Your task to perform on an android device: stop showing notifications on the lock screen Image 0: 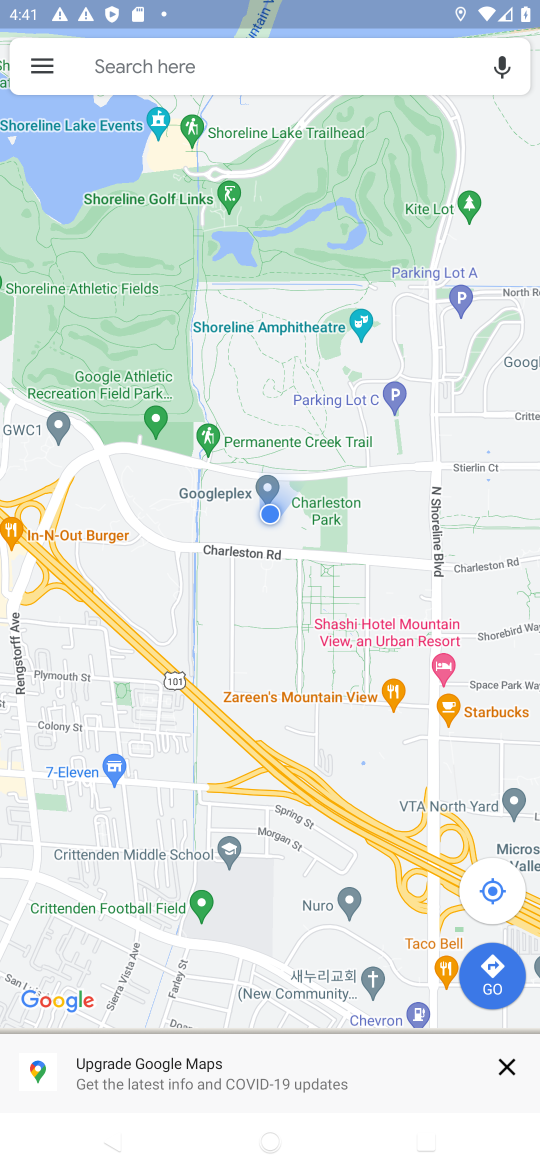
Step 0: press home button
Your task to perform on an android device: stop showing notifications on the lock screen Image 1: 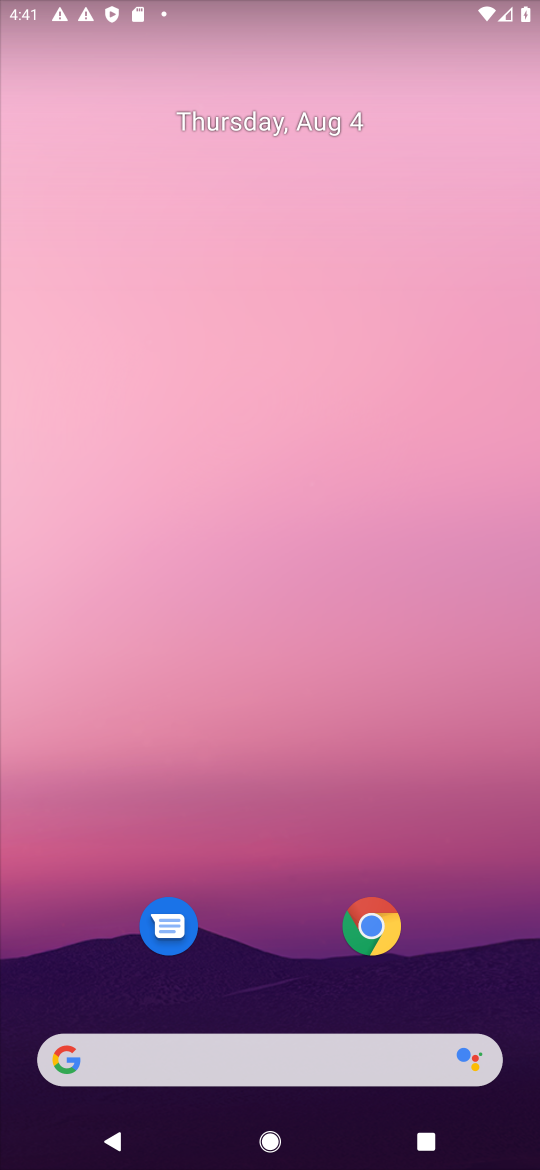
Step 1: drag from (261, 997) to (347, 362)
Your task to perform on an android device: stop showing notifications on the lock screen Image 2: 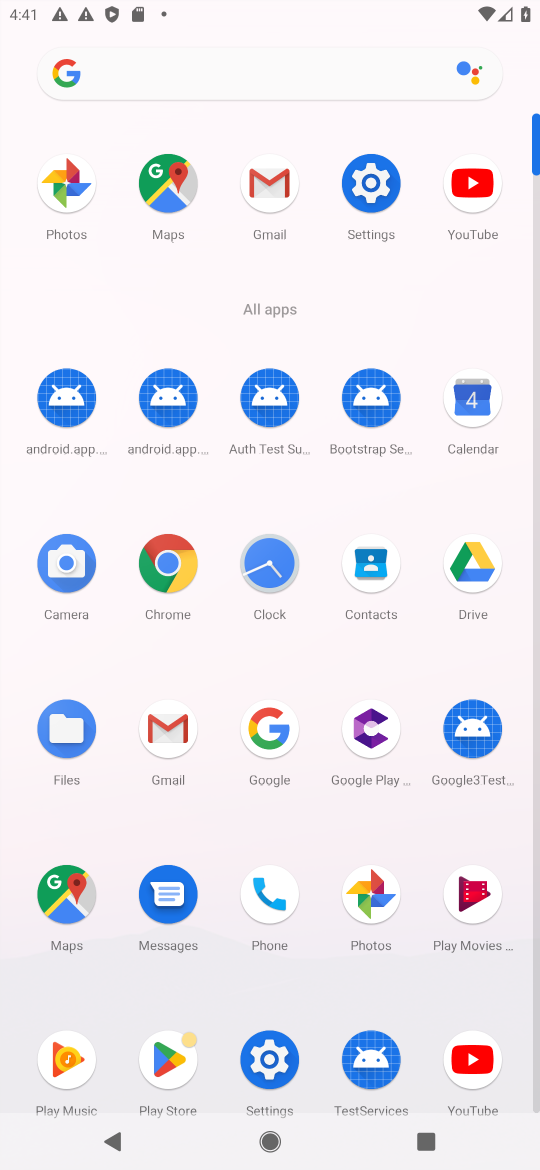
Step 2: click (381, 193)
Your task to perform on an android device: stop showing notifications on the lock screen Image 3: 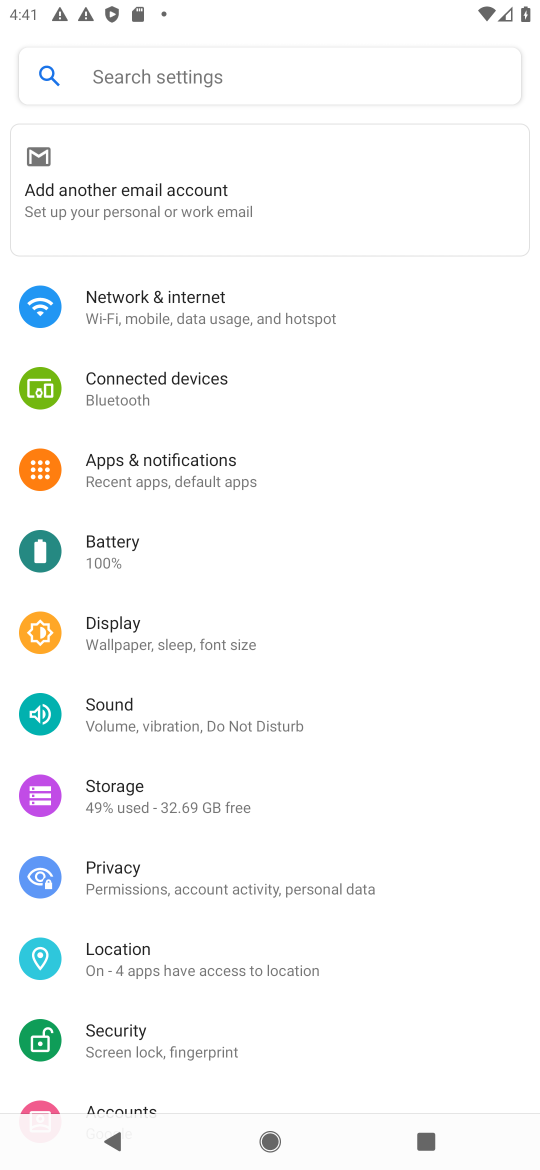
Step 3: click (146, 479)
Your task to perform on an android device: stop showing notifications on the lock screen Image 4: 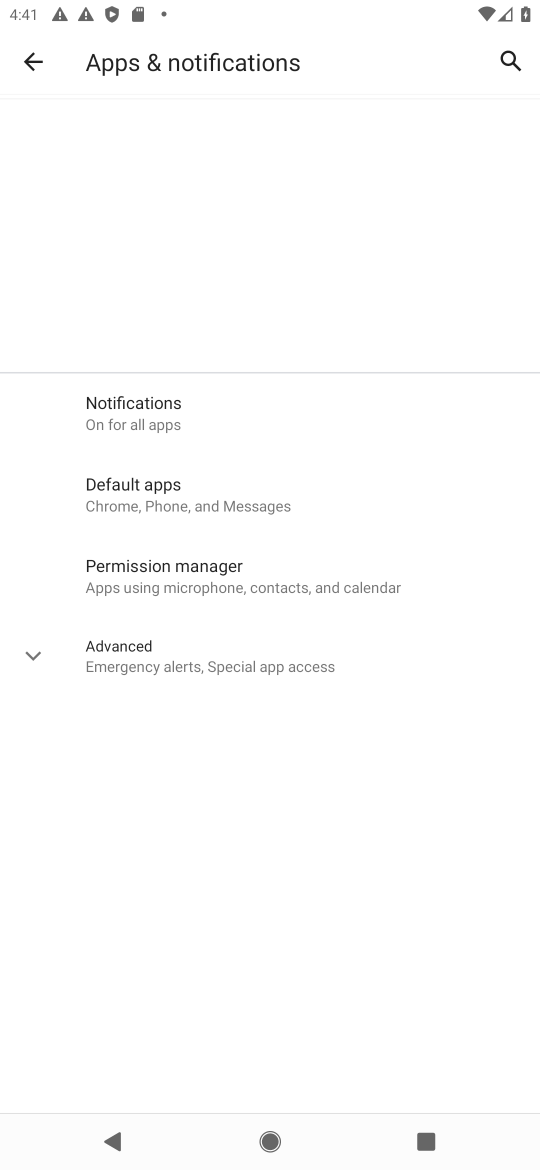
Step 4: click (127, 409)
Your task to perform on an android device: stop showing notifications on the lock screen Image 5: 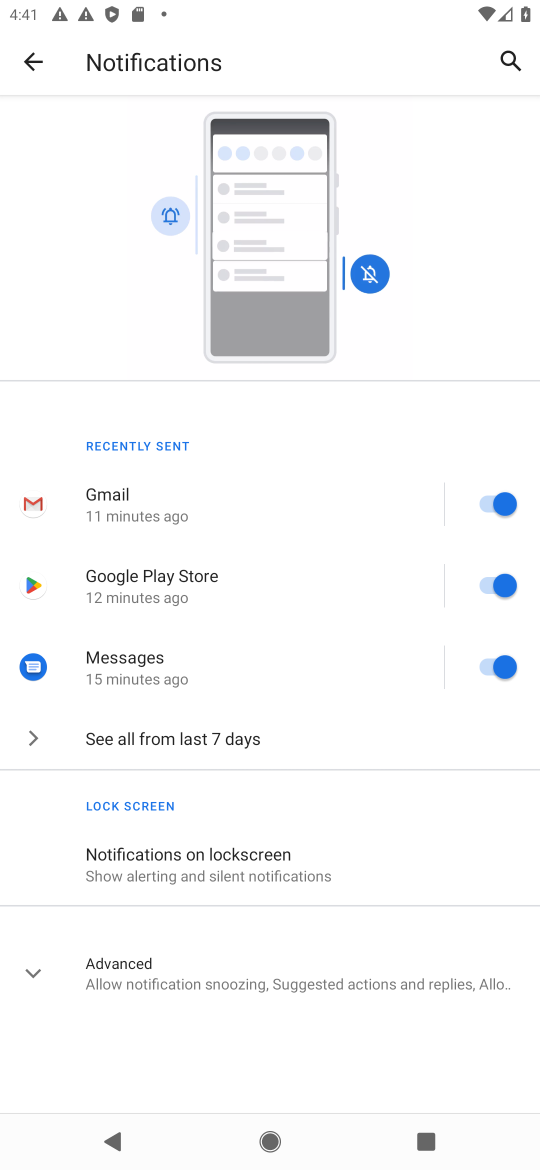
Step 5: click (154, 865)
Your task to perform on an android device: stop showing notifications on the lock screen Image 6: 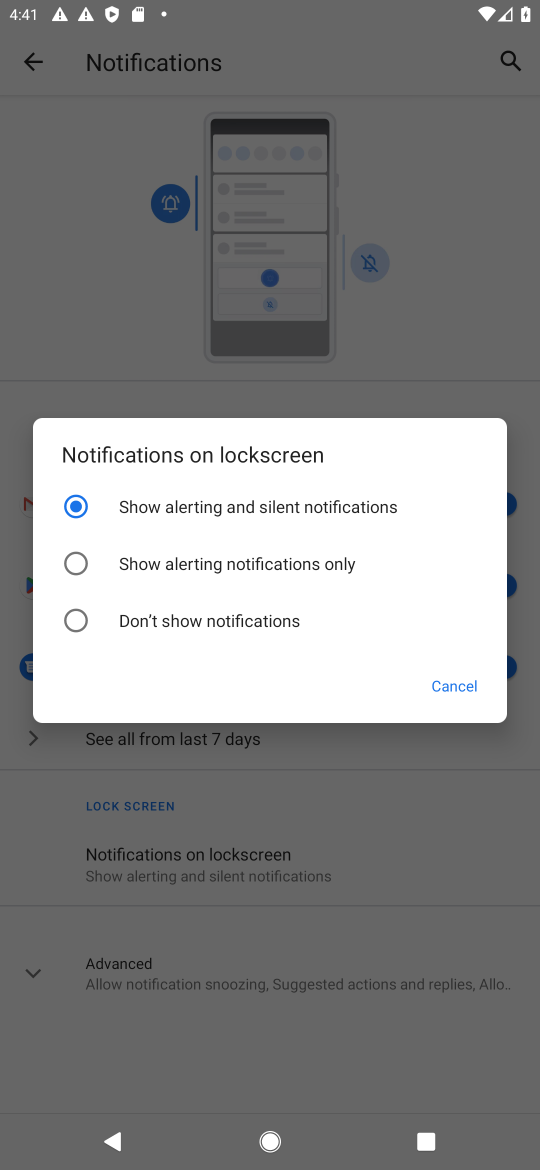
Step 6: click (73, 619)
Your task to perform on an android device: stop showing notifications on the lock screen Image 7: 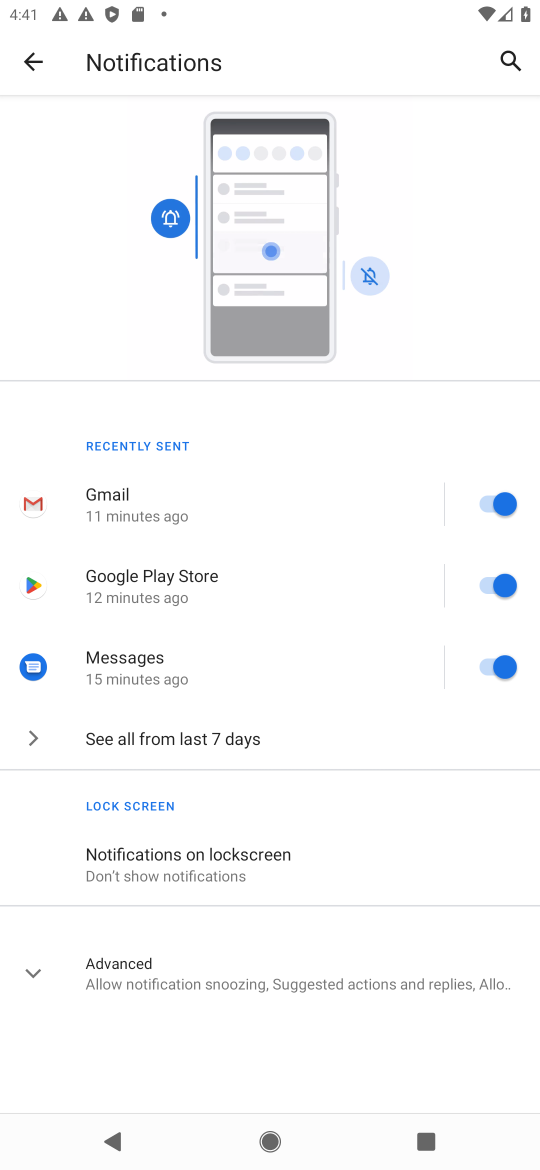
Step 7: task complete